Your task to perform on an android device: Go to Google maps Image 0: 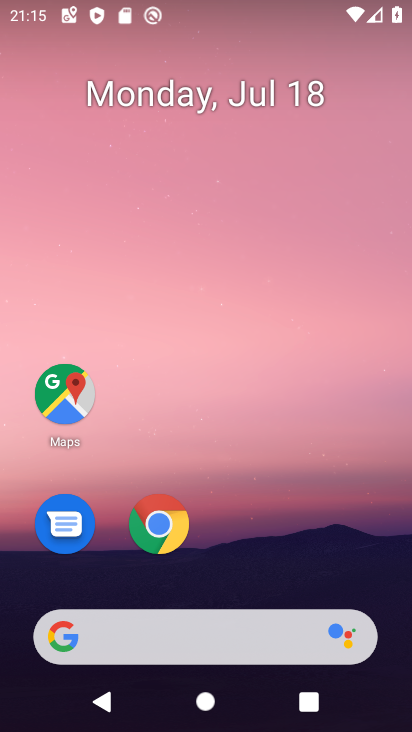
Step 0: click (61, 394)
Your task to perform on an android device: Go to Google maps Image 1: 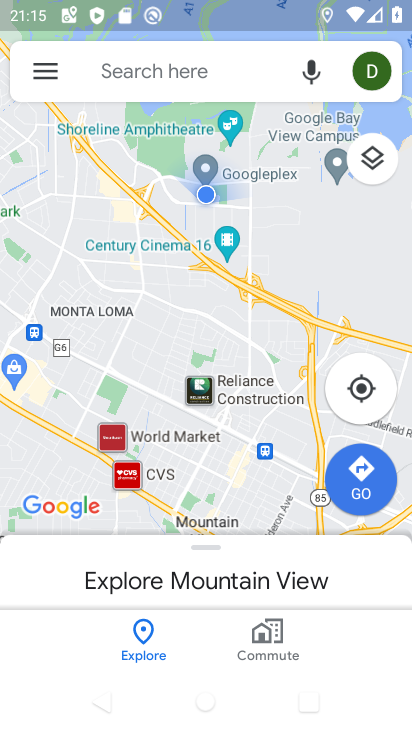
Step 1: click (58, 401)
Your task to perform on an android device: Go to Google maps Image 2: 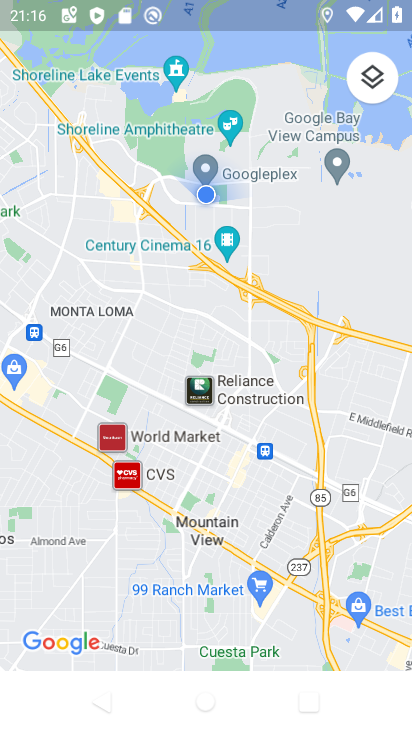
Step 2: task complete